Your task to perform on an android device: Open maps Image 0: 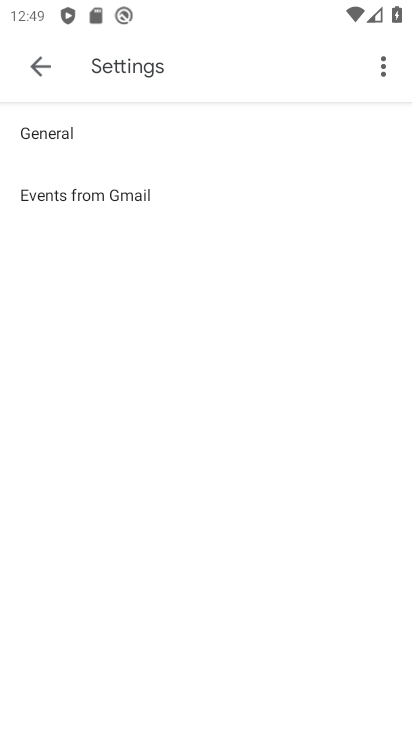
Step 0: press home button
Your task to perform on an android device: Open maps Image 1: 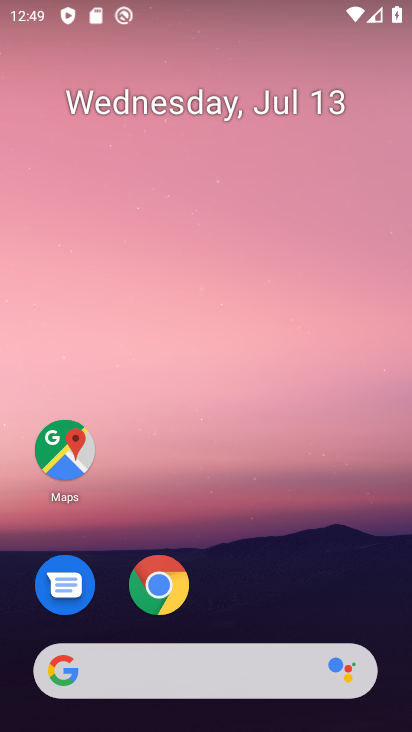
Step 1: click (65, 454)
Your task to perform on an android device: Open maps Image 2: 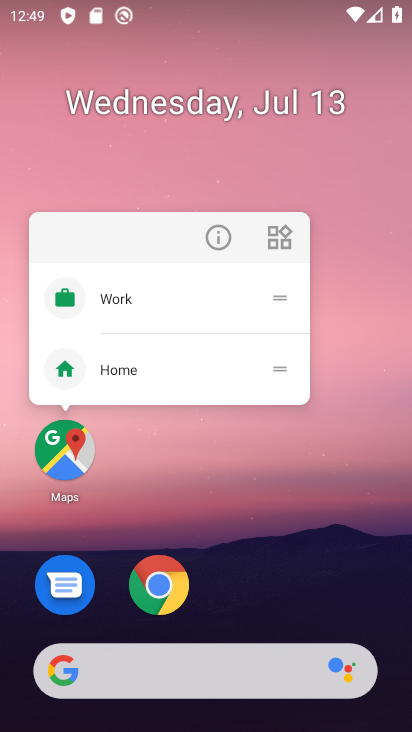
Step 2: click (65, 455)
Your task to perform on an android device: Open maps Image 3: 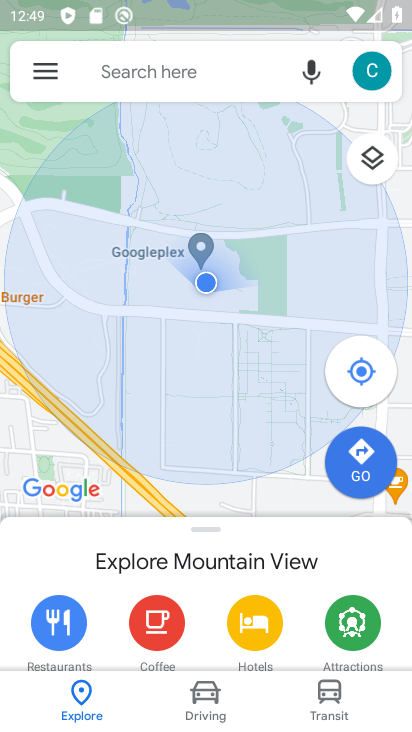
Step 3: task complete